Your task to perform on an android device: uninstall "Google Play Music" Image 0: 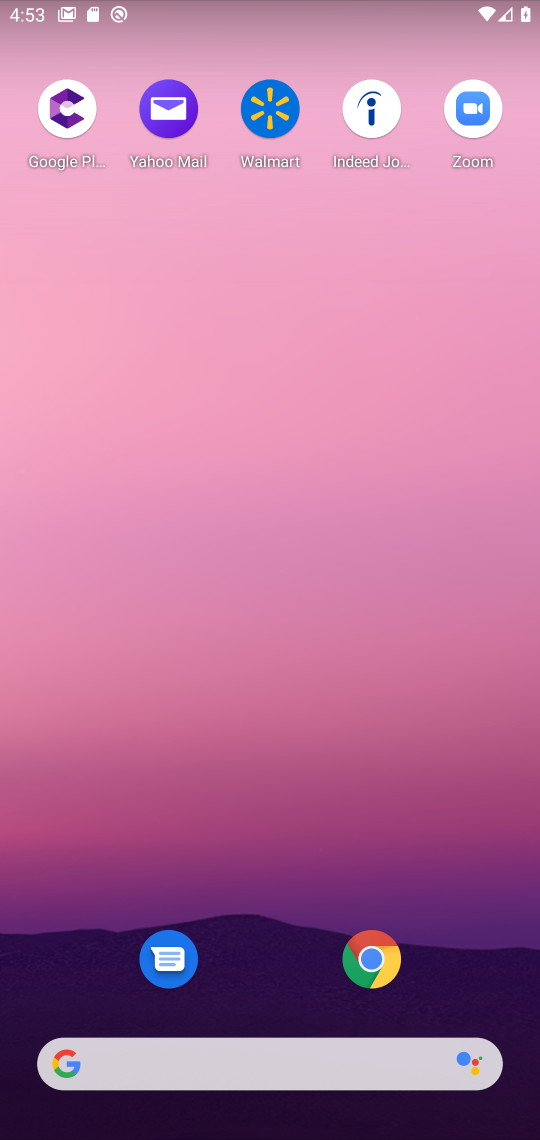
Step 0: drag from (219, 852) to (219, 211)
Your task to perform on an android device: uninstall "Google Play Music" Image 1: 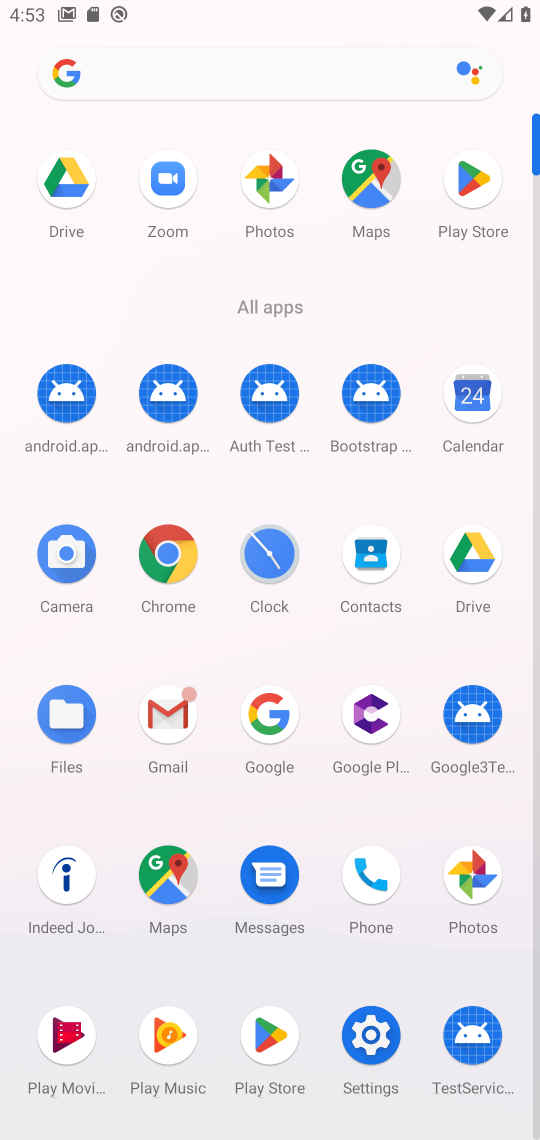
Step 1: click (43, 1045)
Your task to perform on an android device: uninstall "Google Play Music" Image 2: 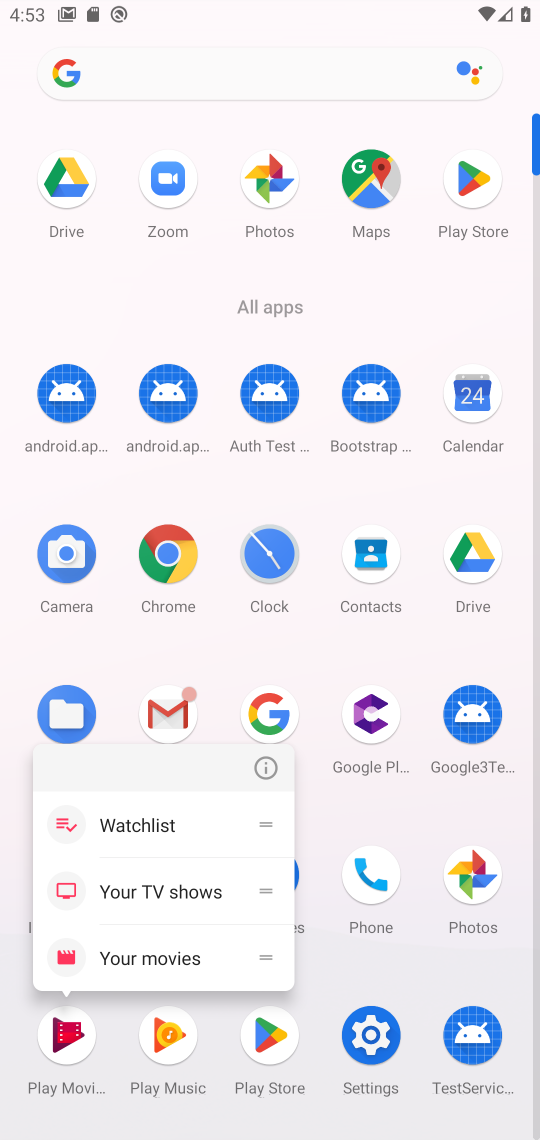
Step 2: task complete